Your task to perform on an android device: change notifications settings Image 0: 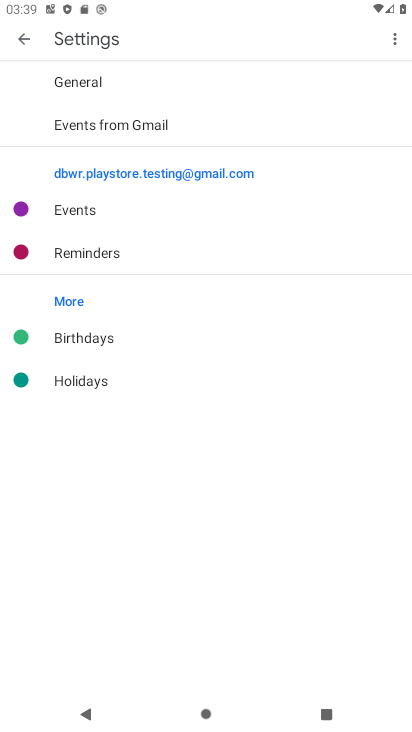
Step 0: press home button
Your task to perform on an android device: change notifications settings Image 1: 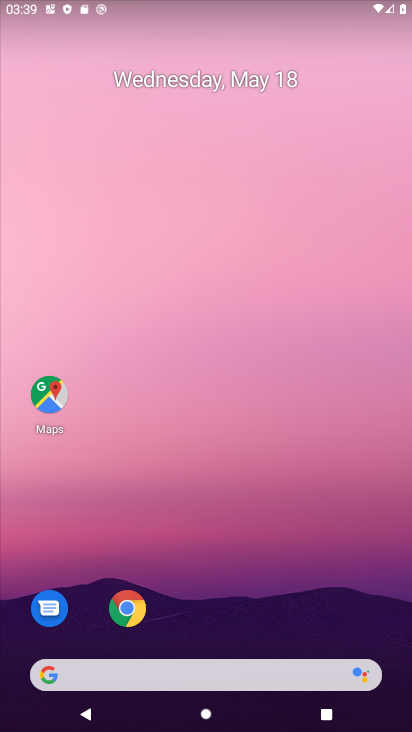
Step 1: drag from (179, 620) to (162, 215)
Your task to perform on an android device: change notifications settings Image 2: 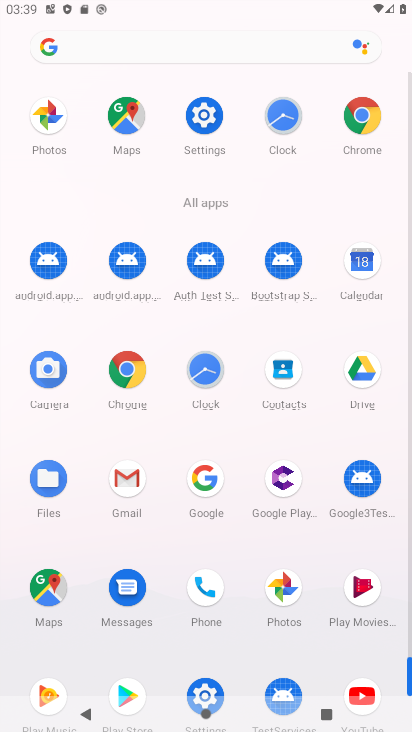
Step 2: click (201, 111)
Your task to perform on an android device: change notifications settings Image 3: 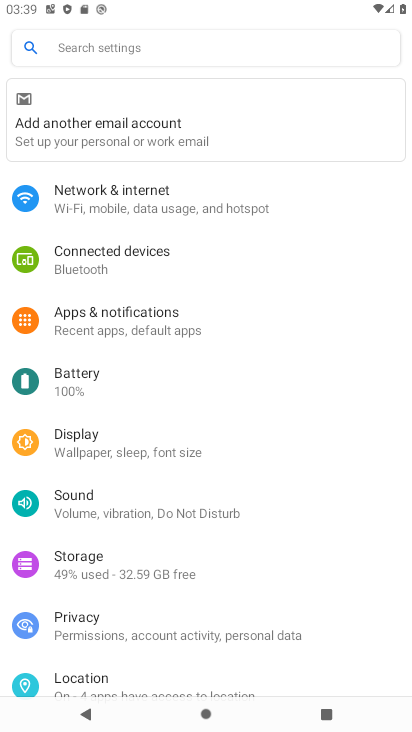
Step 3: click (111, 326)
Your task to perform on an android device: change notifications settings Image 4: 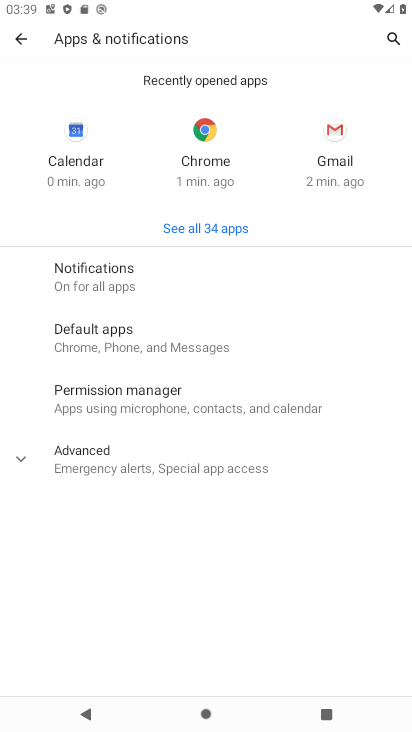
Step 4: task complete